Your task to perform on an android device: Open Google Maps and go to "Timeline" Image 0: 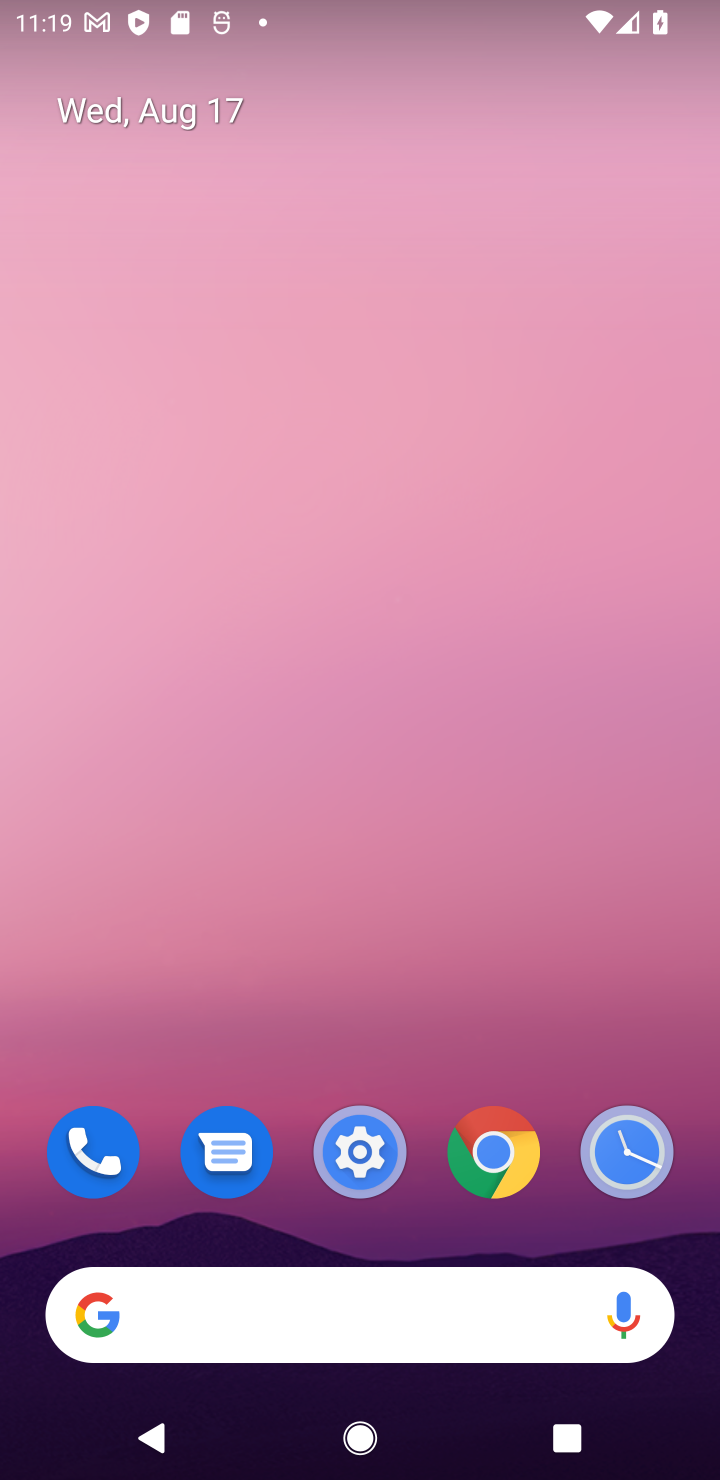
Step 0: drag from (575, 1220) to (411, 3)
Your task to perform on an android device: Open Google Maps and go to "Timeline" Image 1: 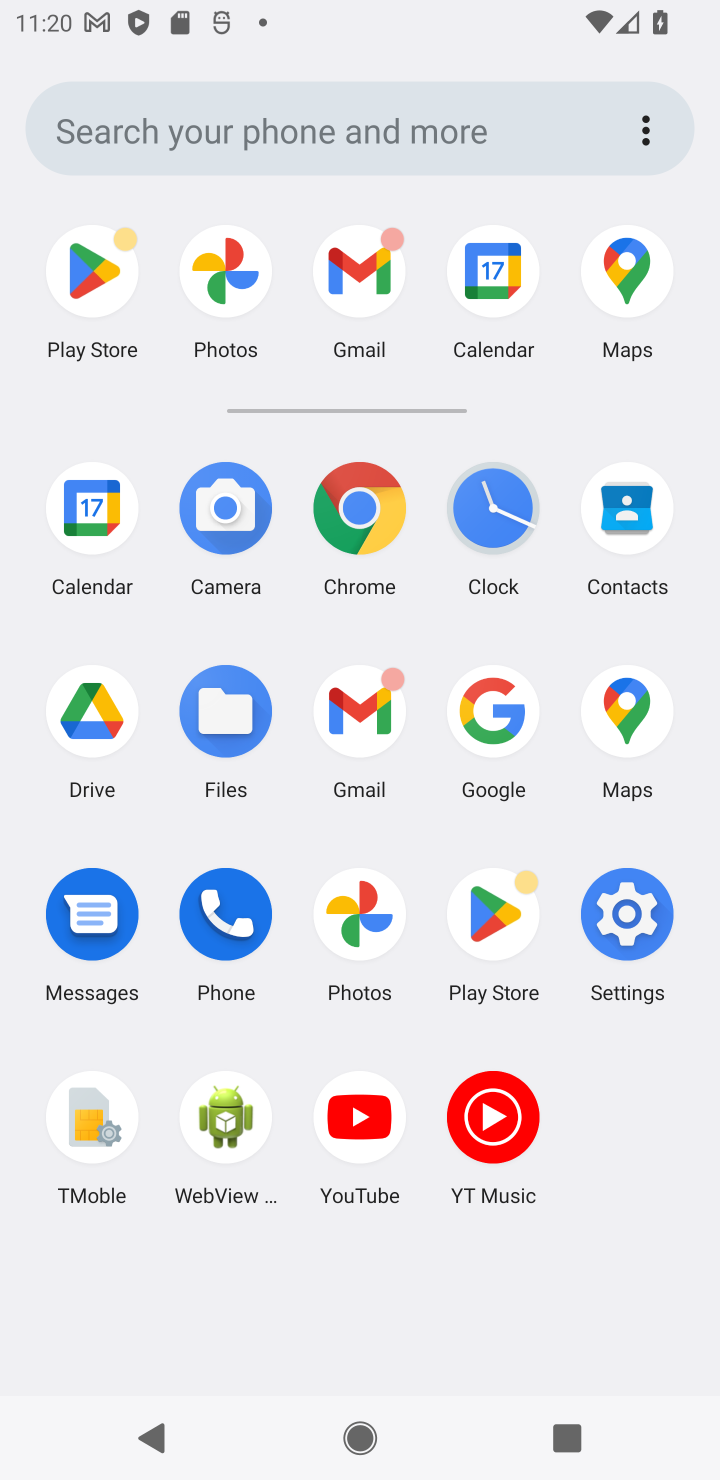
Step 1: click (668, 707)
Your task to perform on an android device: Open Google Maps and go to "Timeline" Image 2: 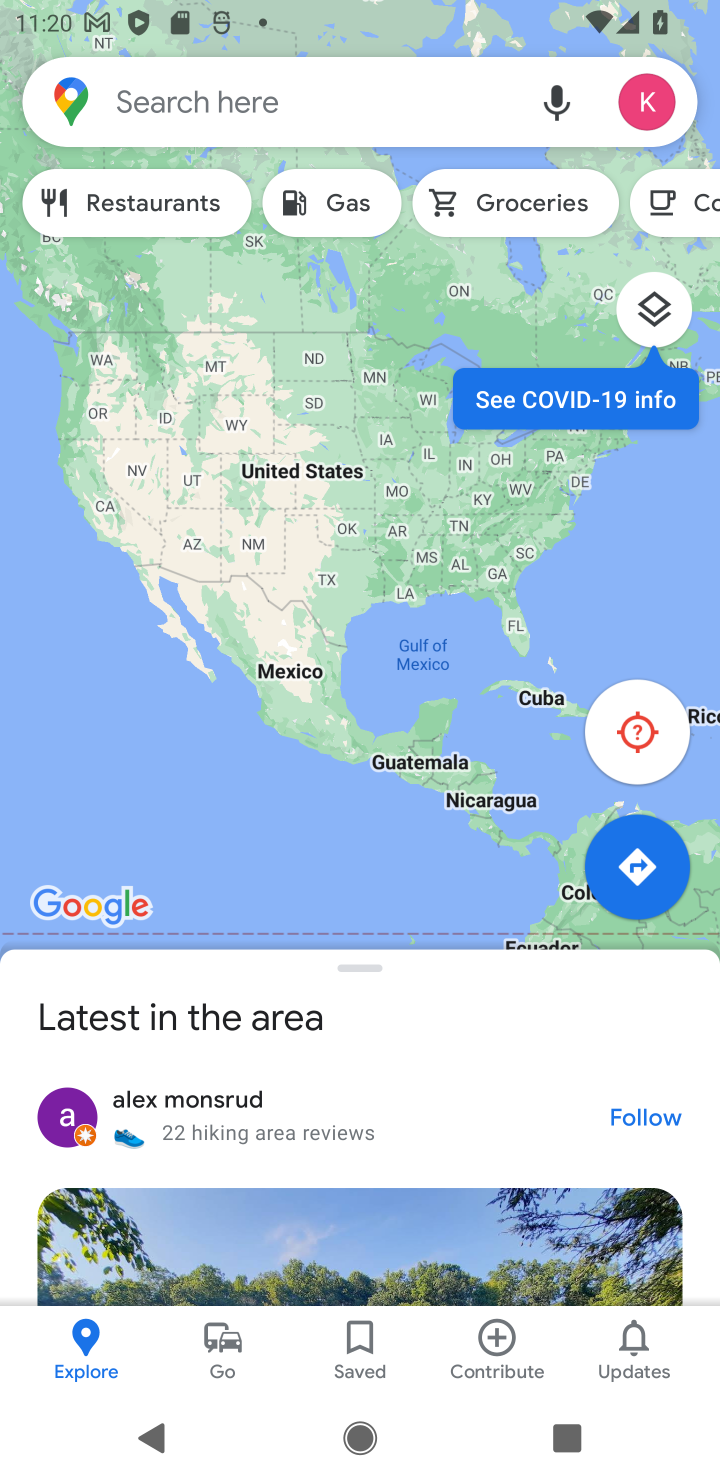
Step 2: click (643, 81)
Your task to perform on an android device: Open Google Maps and go to "Timeline" Image 3: 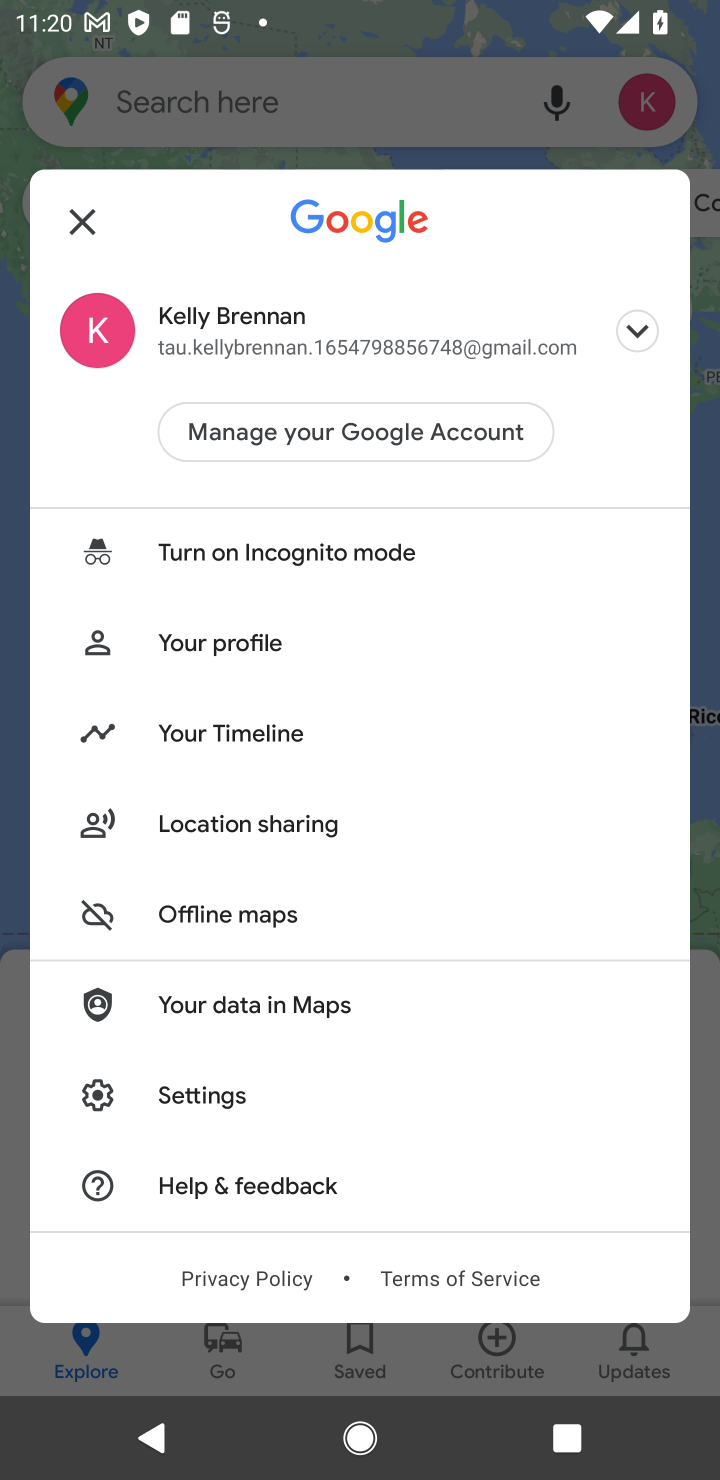
Step 3: click (258, 735)
Your task to perform on an android device: Open Google Maps and go to "Timeline" Image 4: 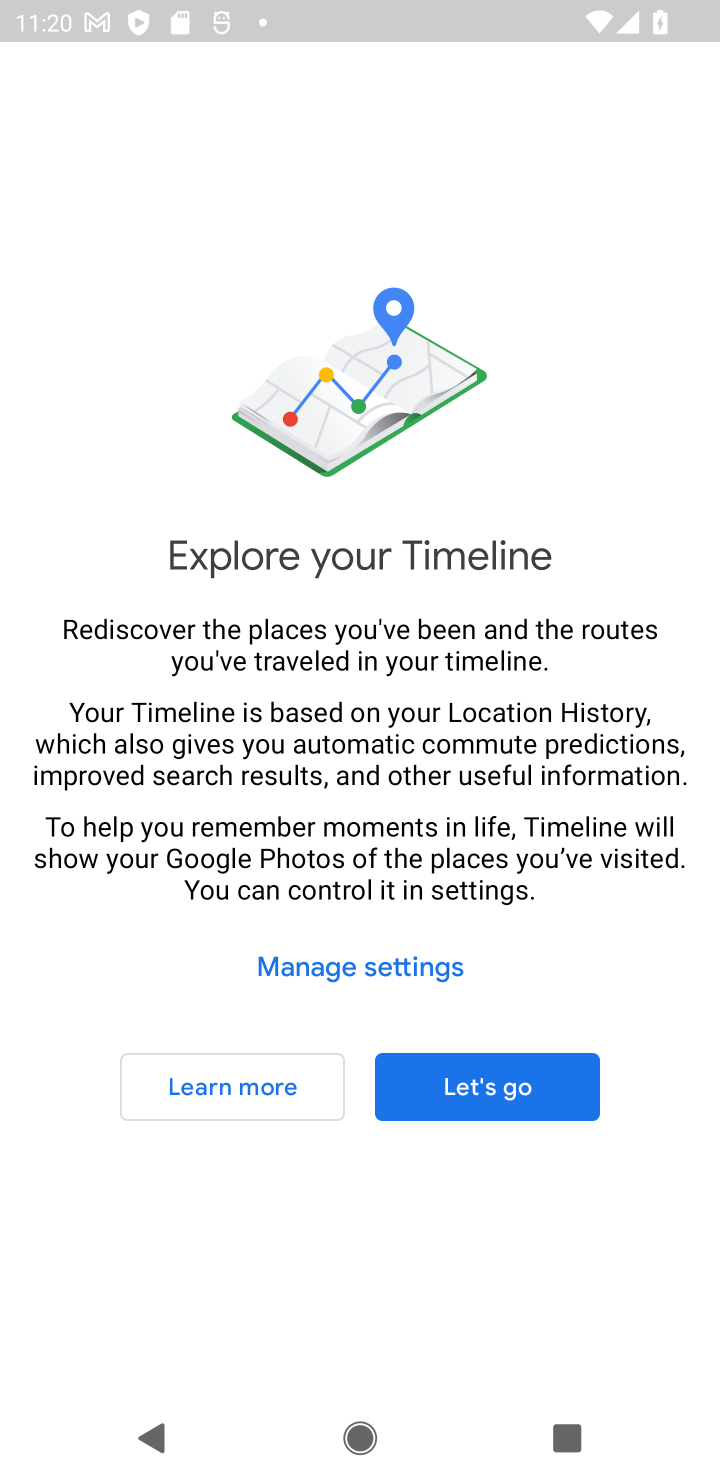
Step 4: task complete